Your task to perform on an android device: set an alarm Image 0: 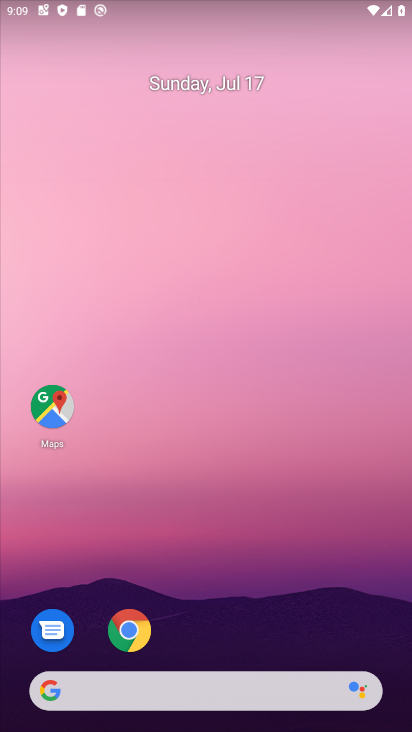
Step 0: drag from (326, 614) to (336, 211)
Your task to perform on an android device: set an alarm Image 1: 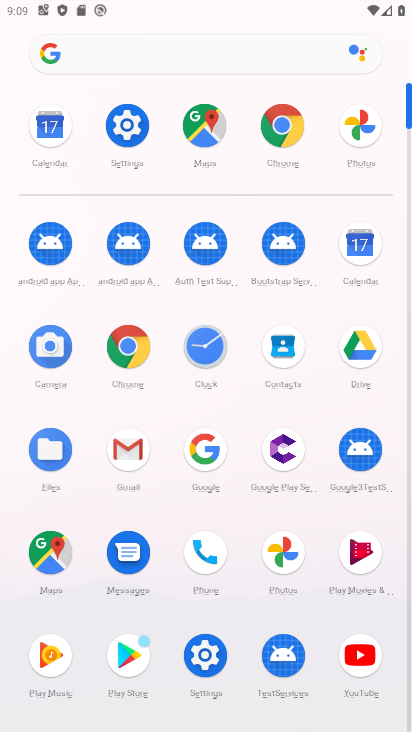
Step 1: click (203, 346)
Your task to perform on an android device: set an alarm Image 2: 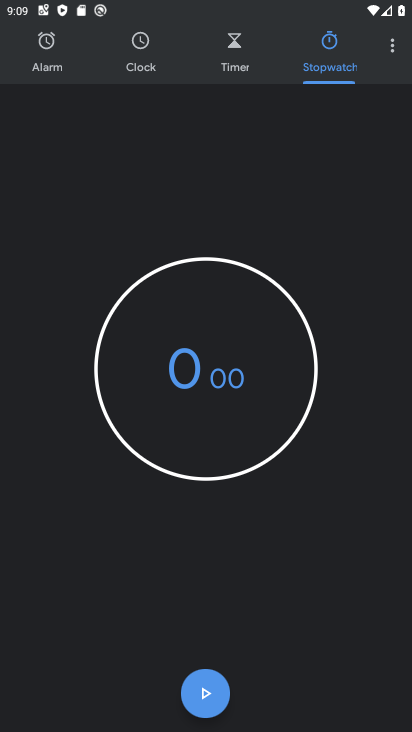
Step 2: click (44, 62)
Your task to perform on an android device: set an alarm Image 3: 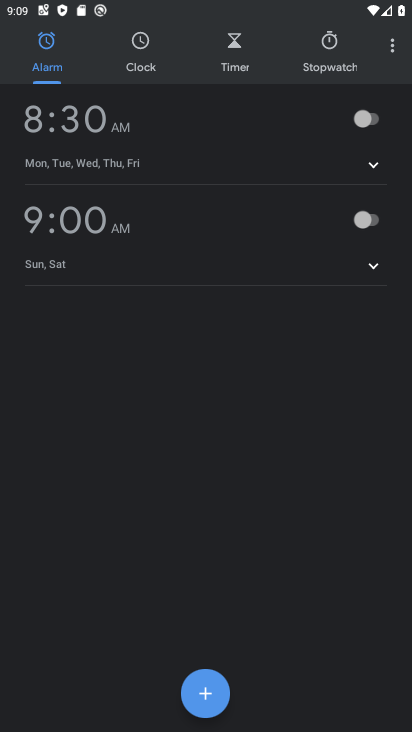
Step 3: click (209, 698)
Your task to perform on an android device: set an alarm Image 4: 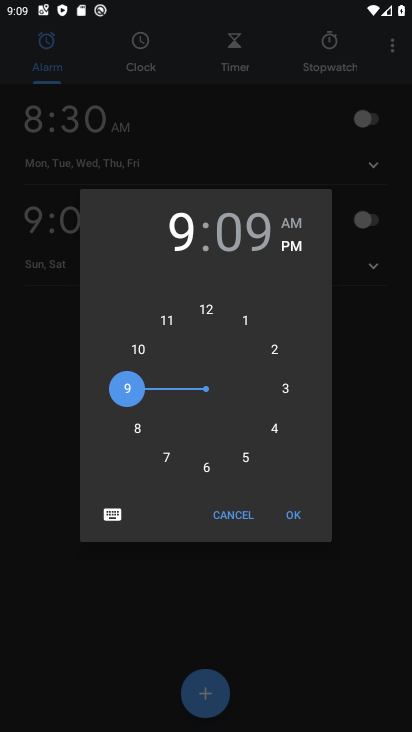
Step 4: click (296, 515)
Your task to perform on an android device: set an alarm Image 5: 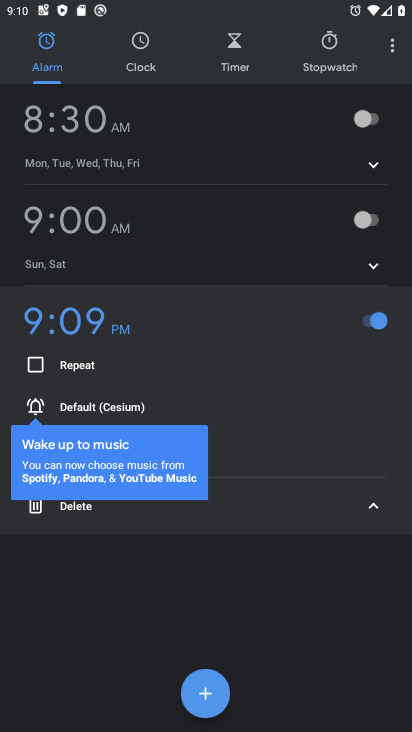
Step 5: task complete